Your task to perform on an android device: turn on improve location accuracy Image 0: 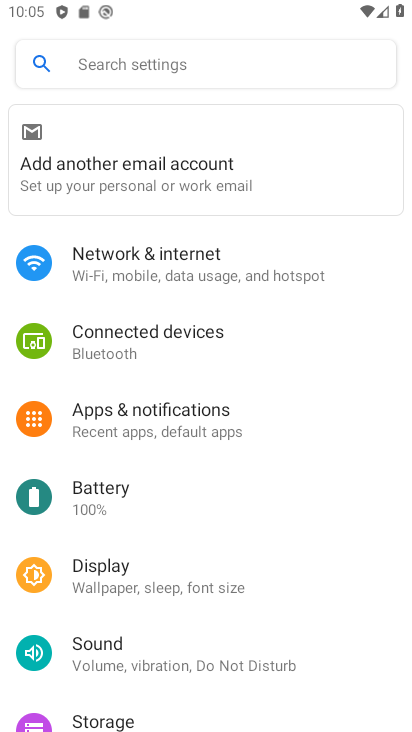
Step 0: drag from (188, 637) to (260, 40)
Your task to perform on an android device: turn on improve location accuracy Image 1: 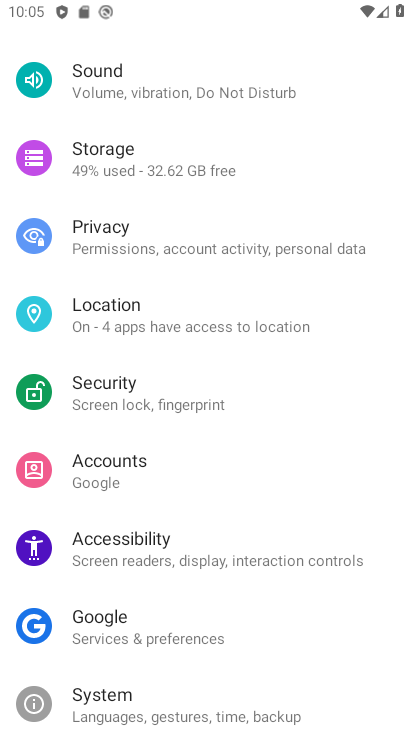
Step 1: click (153, 330)
Your task to perform on an android device: turn on improve location accuracy Image 2: 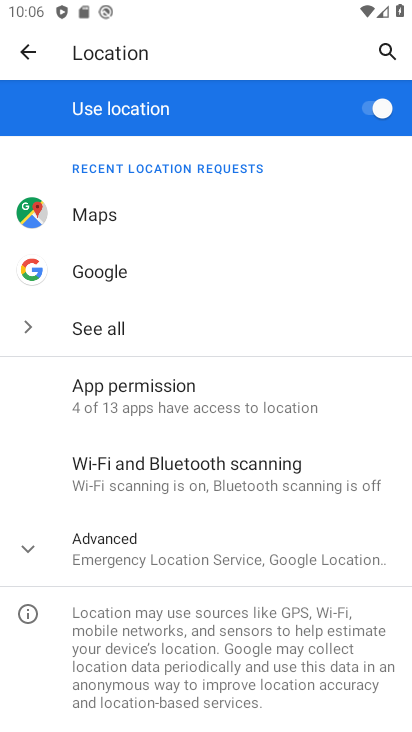
Step 2: click (227, 562)
Your task to perform on an android device: turn on improve location accuracy Image 3: 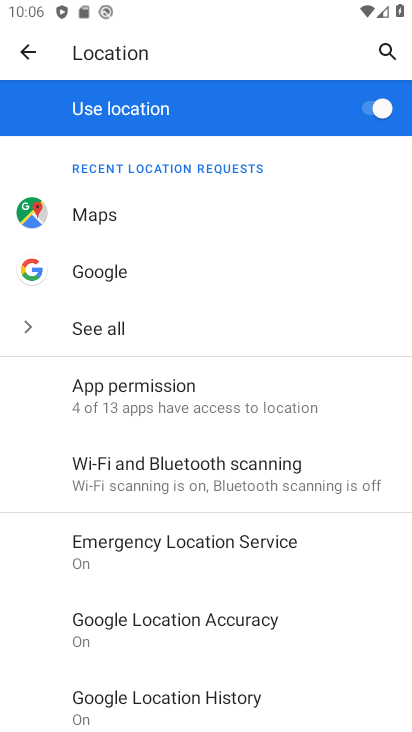
Step 3: click (232, 636)
Your task to perform on an android device: turn on improve location accuracy Image 4: 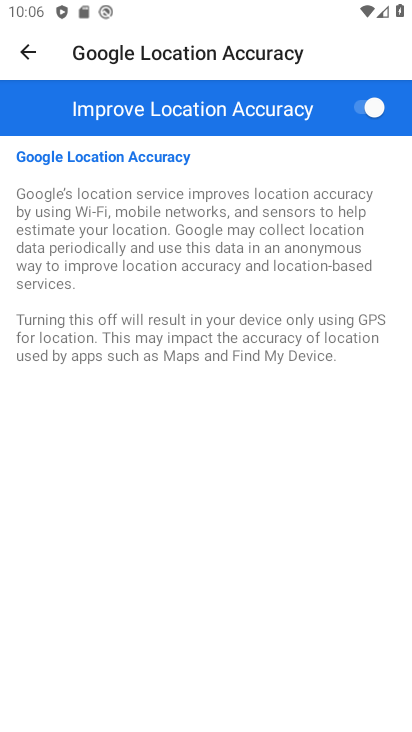
Step 4: task complete